Your task to perform on an android device: open device folders in google photos Image 0: 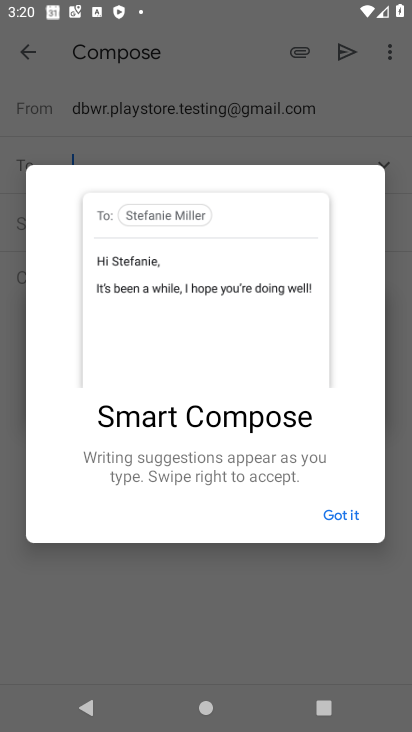
Step 0: press home button
Your task to perform on an android device: open device folders in google photos Image 1: 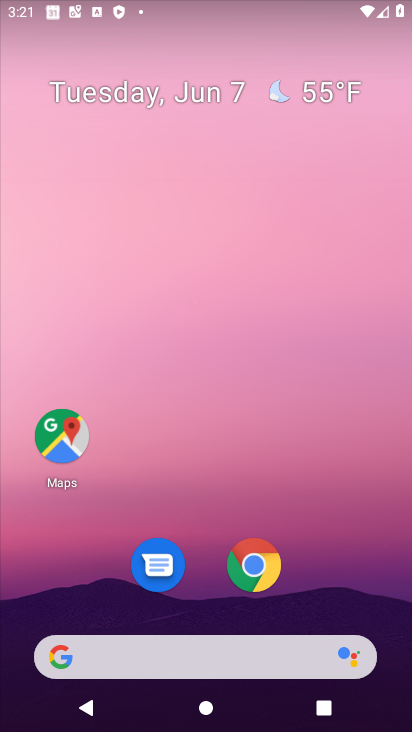
Step 1: drag from (206, 663) to (219, 0)
Your task to perform on an android device: open device folders in google photos Image 2: 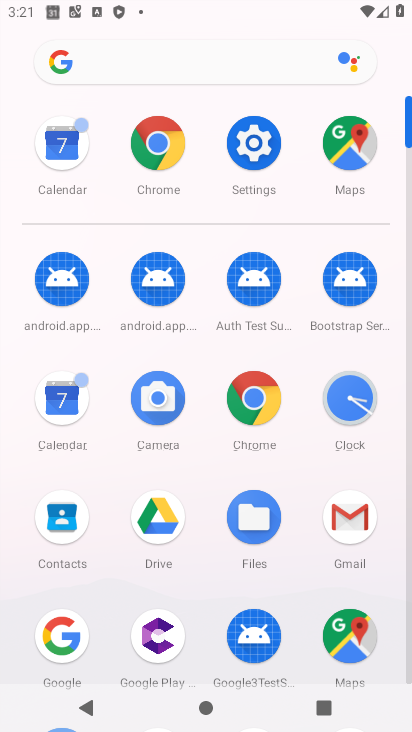
Step 2: drag from (209, 580) to (195, 192)
Your task to perform on an android device: open device folders in google photos Image 3: 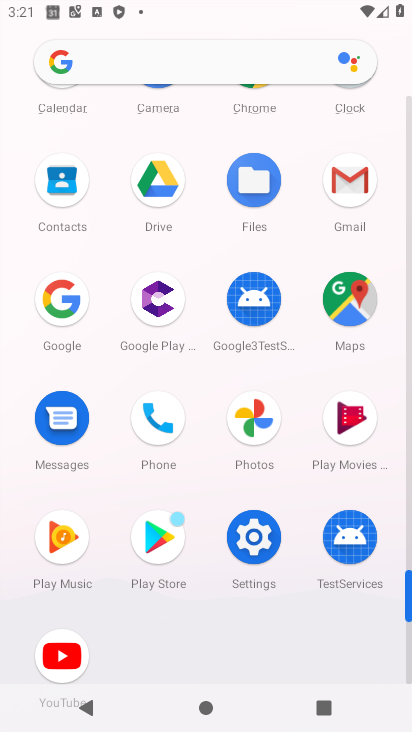
Step 3: click (240, 426)
Your task to perform on an android device: open device folders in google photos Image 4: 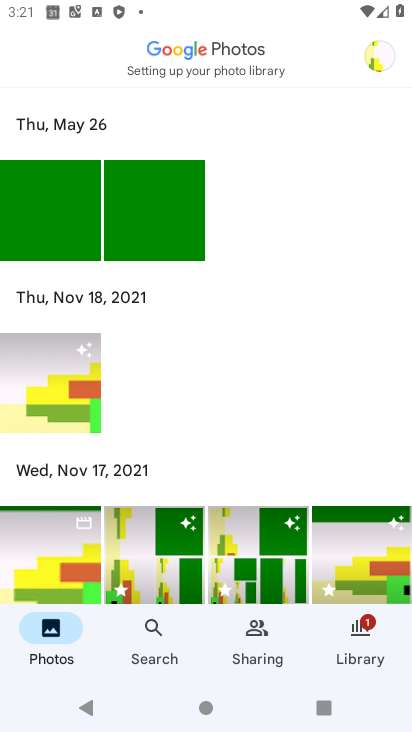
Step 4: click (386, 61)
Your task to perform on an android device: open device folders in google photos Image 5: 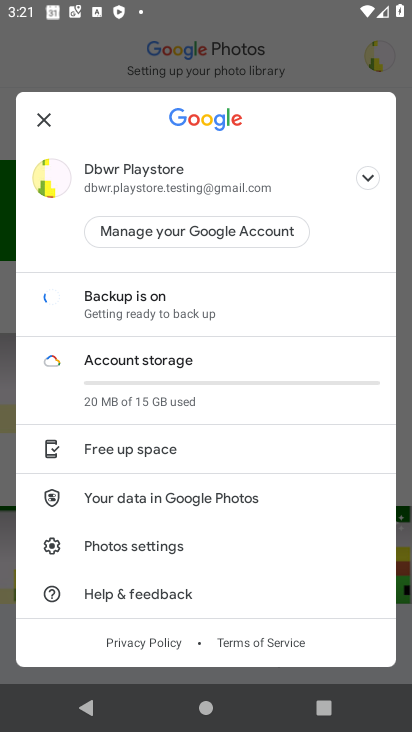
Step 5: click (46, 124)
Your task to perform on an android device: open device folders in google photos Image 6: 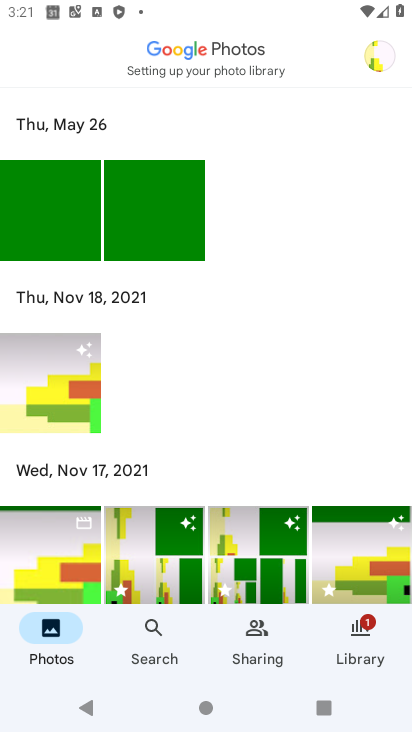
Step 6: task complete